Your task to perform on an android device: turn off improve location accuracy Image 0: 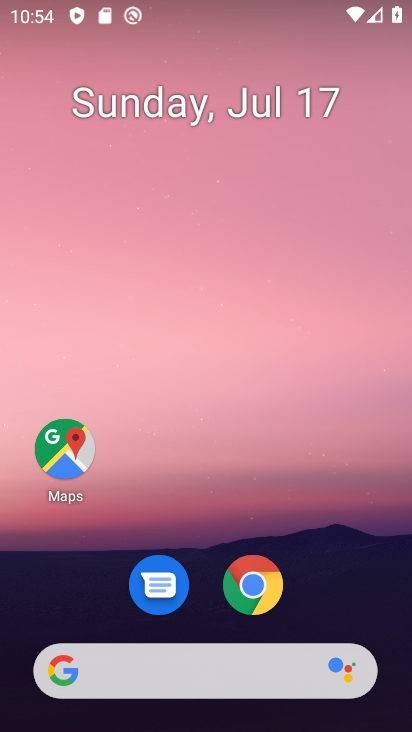
Step 0: drag from (339, 547) to (326, 91)
Your task to perform on an android device: turn off improve location accuracy Image 1: 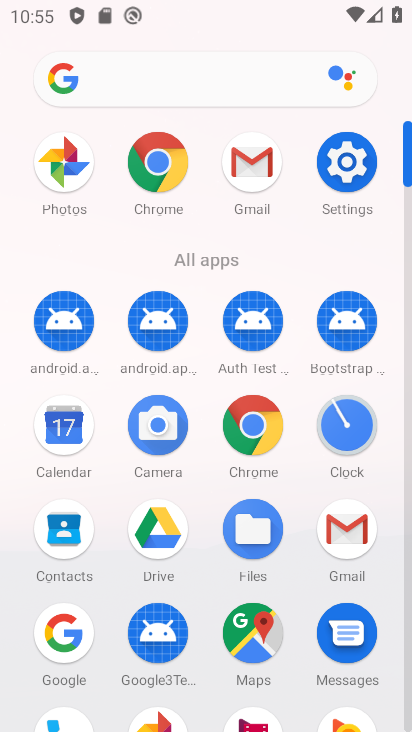
Step 1: click (340, 170)
Your task to perform on an android device: turn off improve location accuracy Image 2: 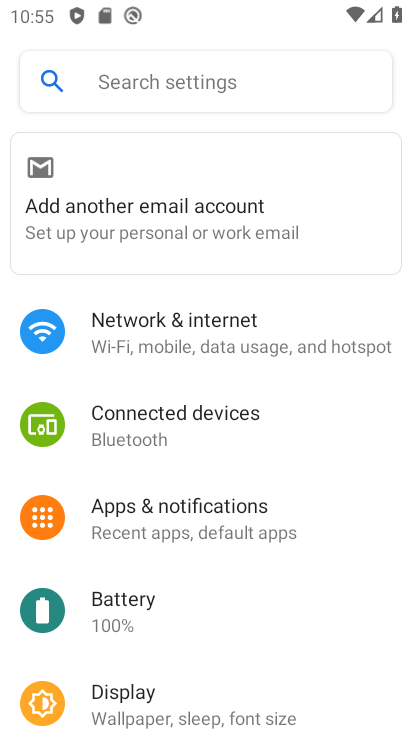
Step 2: drag from (211, 550) to (269, 137)
Your task to perform on an android device: turn off improve location accuracy Image 3: 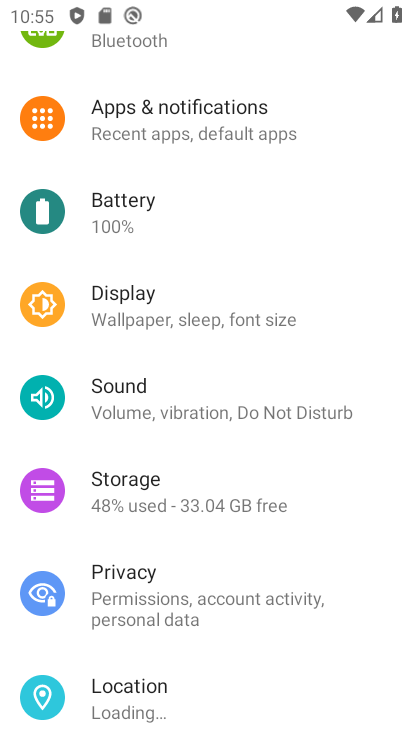
Step 3: drag from (176, 572) to (194, 356)
Your task to perform on an android device: turn off improve location accuracy Image 4: 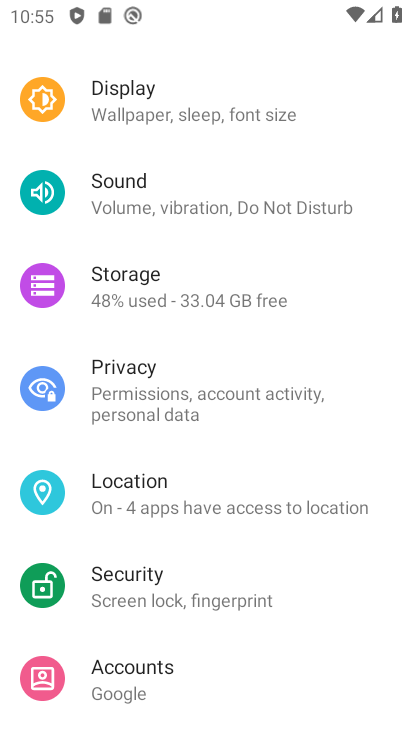
Step 4: click (191, 488)
Your task to perform on an android device: turn off improve location accuracy Image 5: 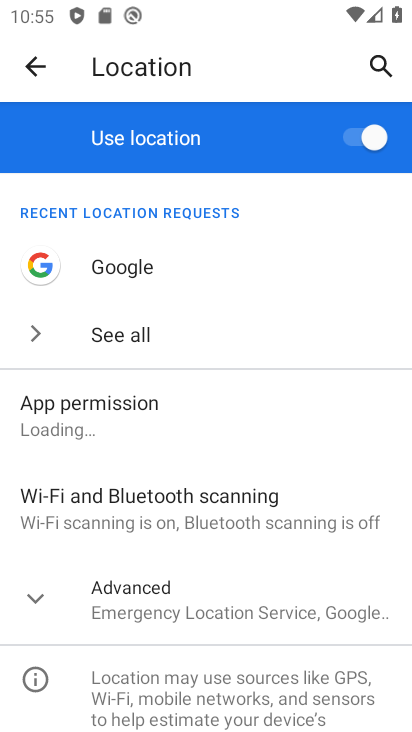
Step 5: click (34, 602)
Your task to perform on an android device: turn off improve location accuracy Image 6: 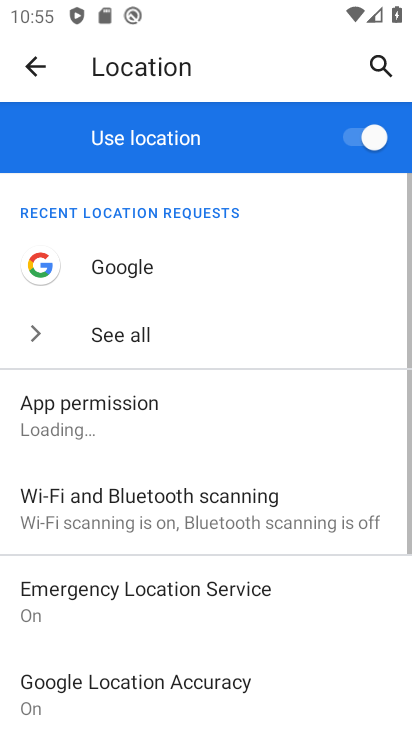
Step 6: drag from (225, 506) to (271, 299)
Your task to perform on an android device: turn off improve location accuracy Image 7: 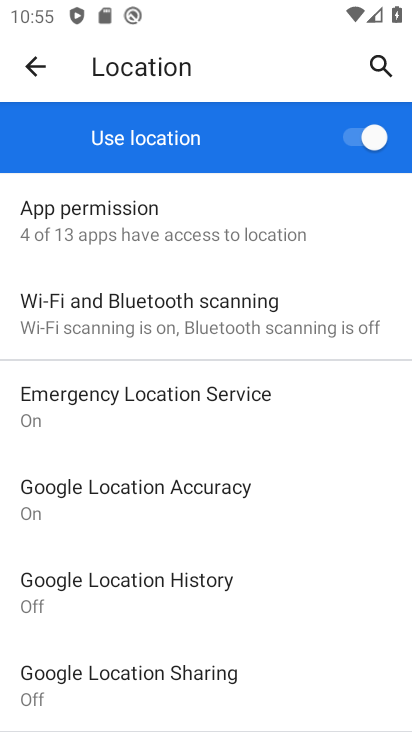
Step 7: click (185, 498)
Your task to perform on an android device: turn off improve location accuracy Image 8: 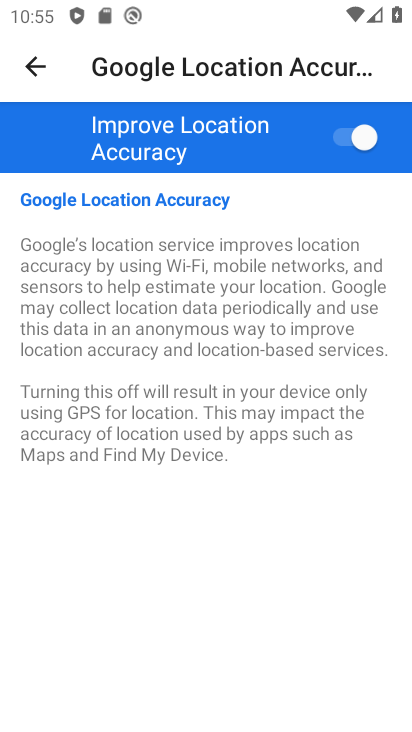
Step 8: click (363, 146)
Your task to perform on an android device: turn off improve location accuracy Image 9: 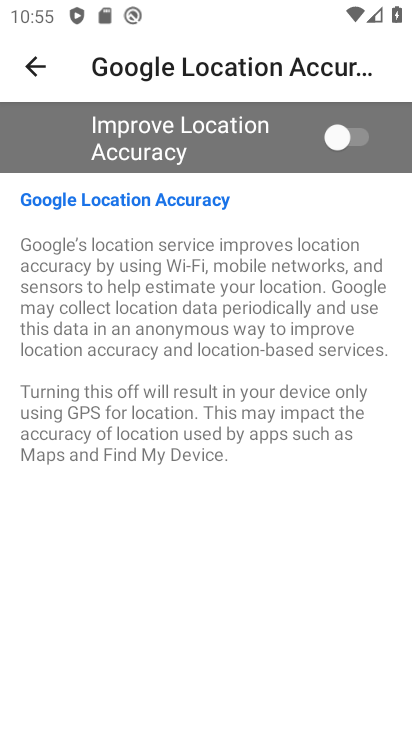
Step 9: task complete